Your task to perform on an android device: Open the Play Movies app and select the watchlist tab. Image 0: 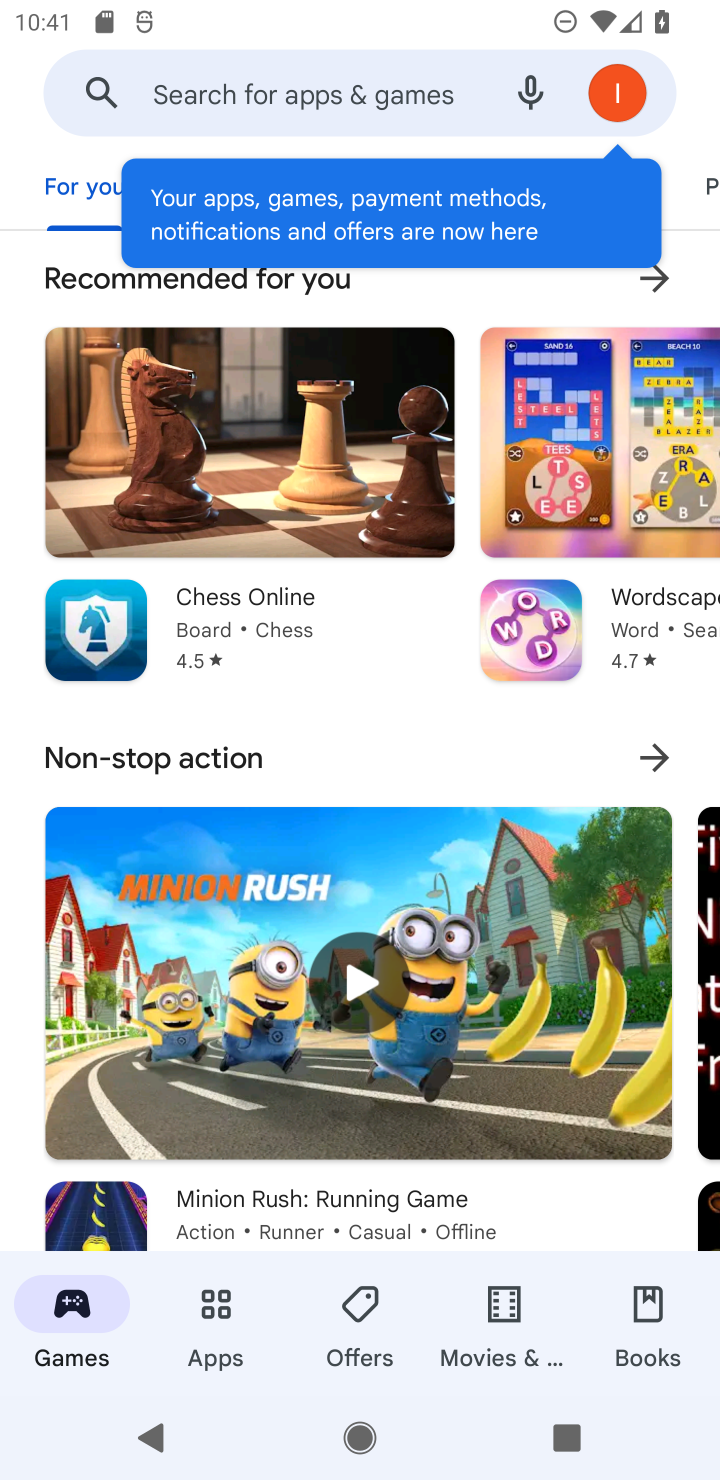
Step 0: press home button
Your task to perform on an android device: Open the Play Movies app and select the watchlist tab. Image 1: 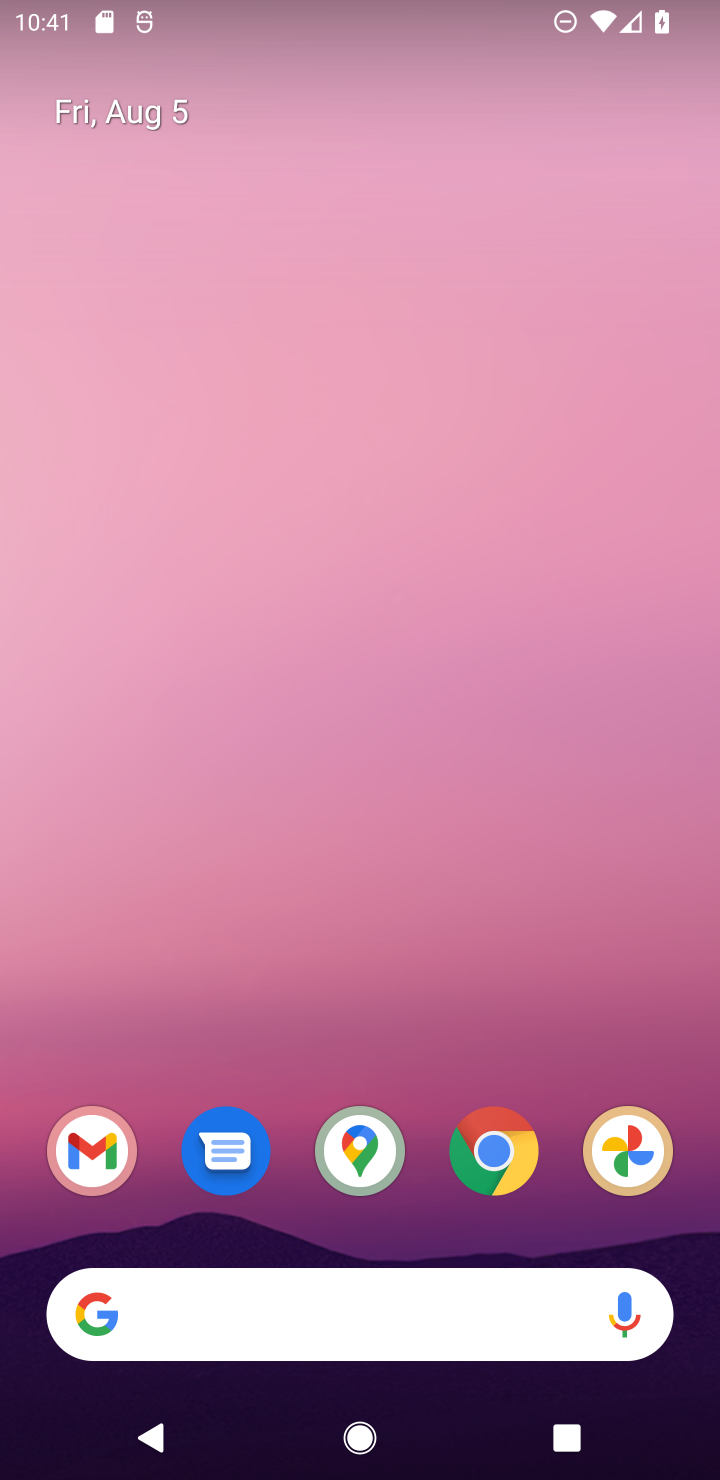
Step 1: task complete